Your task to perform on an android device: turn off smart reply in the gmail app Image 0: 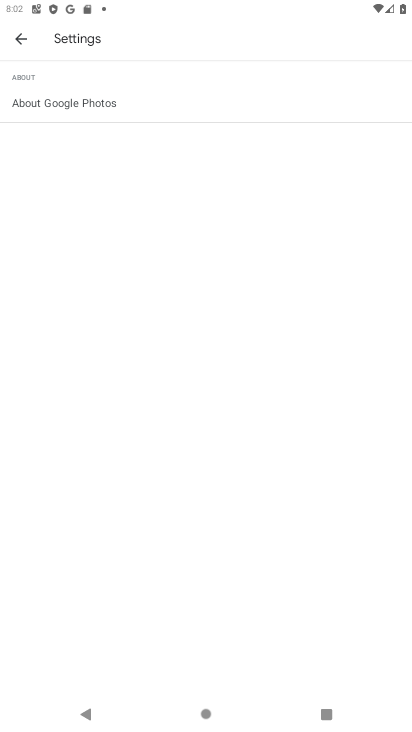
Step 0: press home button
Your task to perform on an android device: turn off smart reply in the gmail app Image 1: 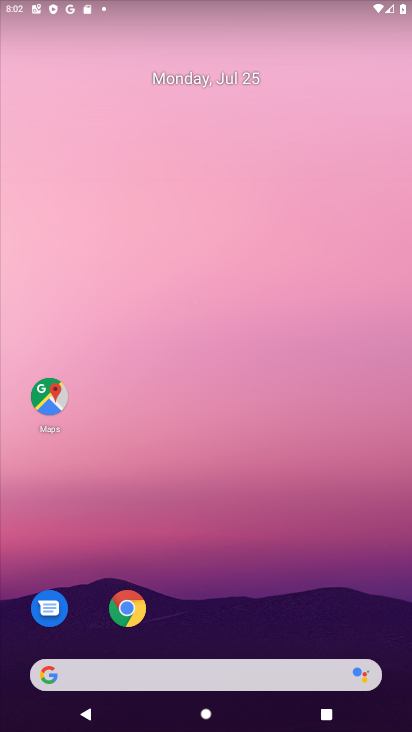
Step 1: drag from (182, 590) to (232, 215)
Your task to perform on an android device: turn off smart reply in the gmail app Image 2: 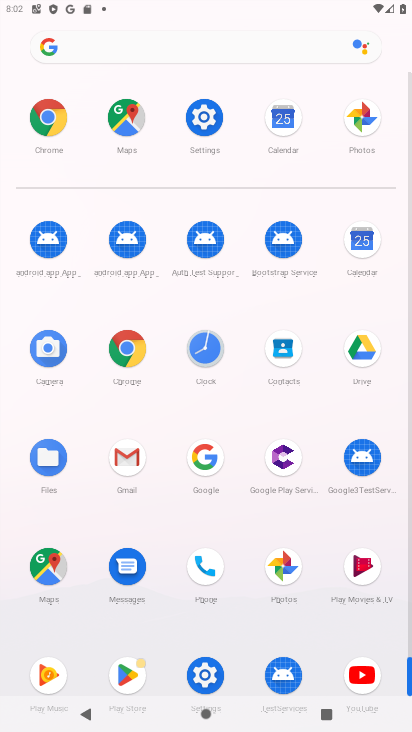
Step 2: click (133, 480)
Your task to perform on an android device: turn off smart reply in the gmail app Image 3: 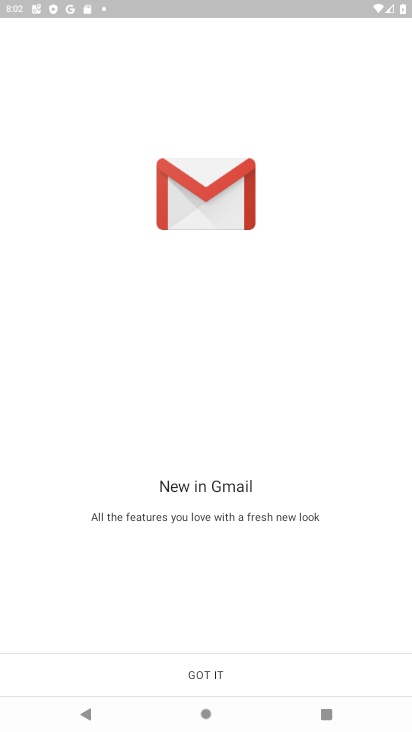
Step 3: click (261, 680)
Your task to perform on an android device: turn off smart reply in the gmail app Image 4: 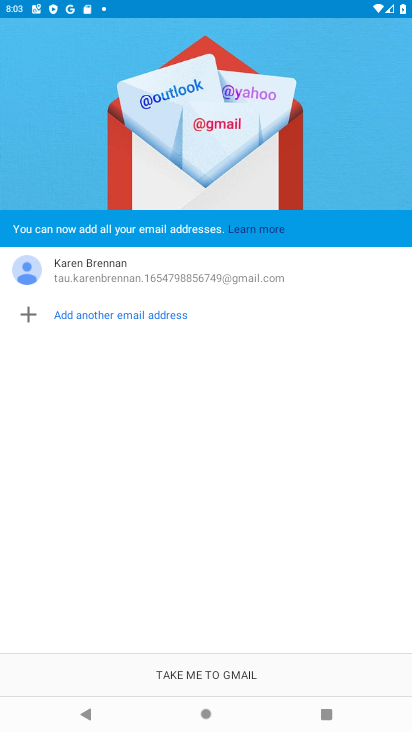
Step 4: click (272, 682)
Your task to perform on an android device: turn off smart reply in the gmail app Image 5: 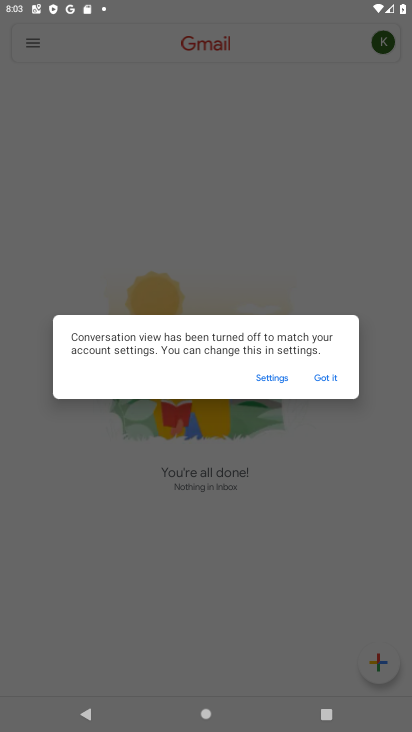
Step 5: click (324, 379)
Your task to perform on an android device: turn off smart reply in the gmail app Image 6: 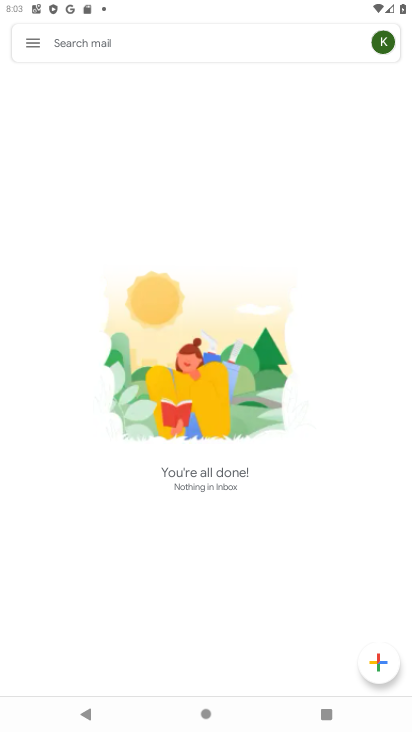
Step 6: click (24, 41)
Your task to perform on an android device: turn off smart reply in the gmail app Image 7: 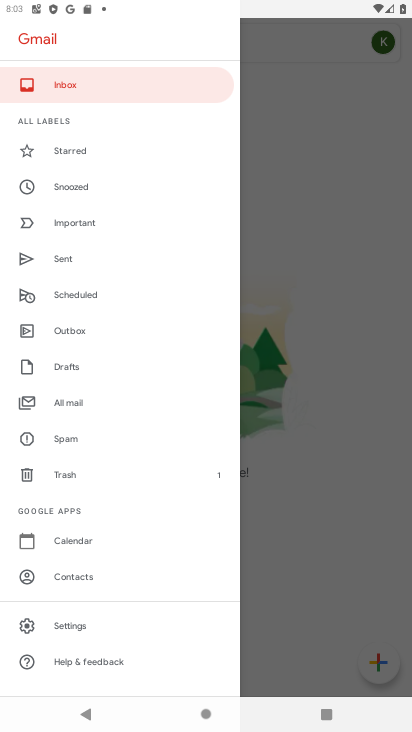
Step 7: click (68, 632)
Your task to perform on an android device: turn off smart reply in the gmail app Image 8: 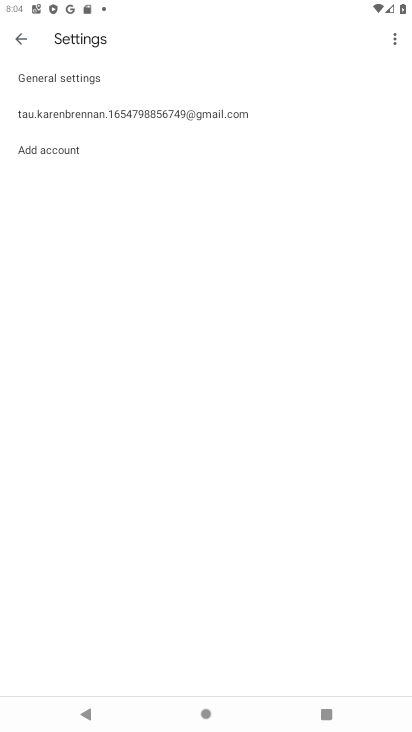
Step 8: click (109, 117)
Your task to perform on an android device: turn off smart reply in the gmail app Image 9: 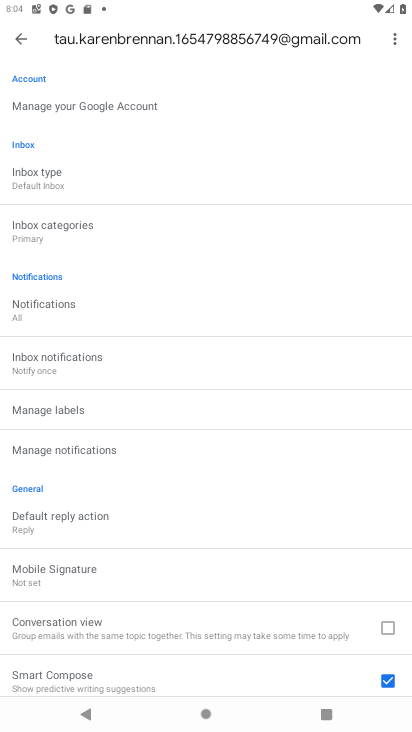
Step 9: drag from (145, 560) to (201, 178)
Your task to perform on an android device: turn off smart reply in the gmail app Image 10: 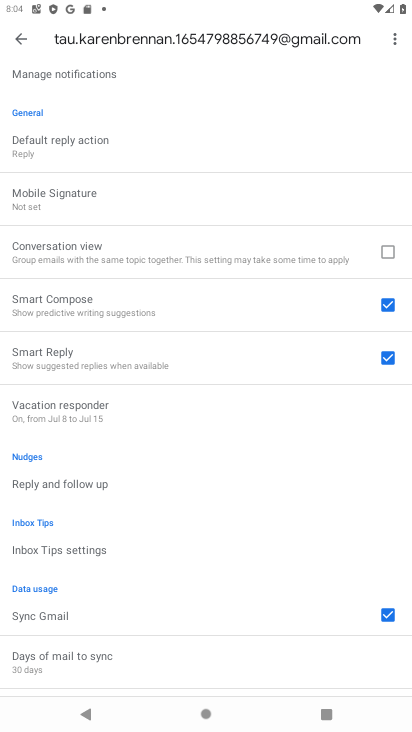
Step 10: click (380, 361)
Your task to perform on an android device: turn off smart reply in the gmail app Image 11: 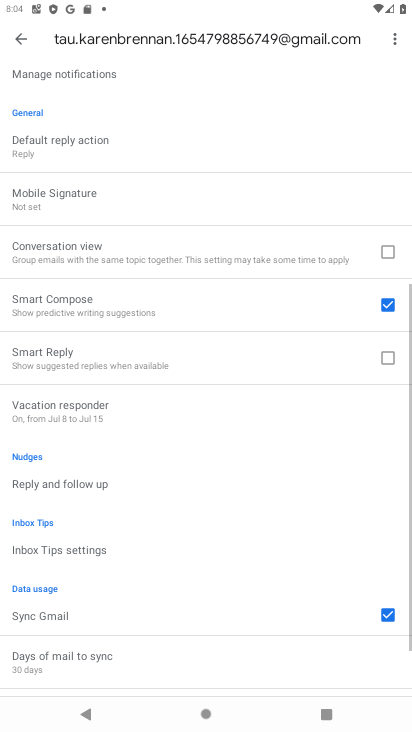
Step 11: task complete